Your task to perform on an android device: delete the emails in spam in the gmail app Image 0: 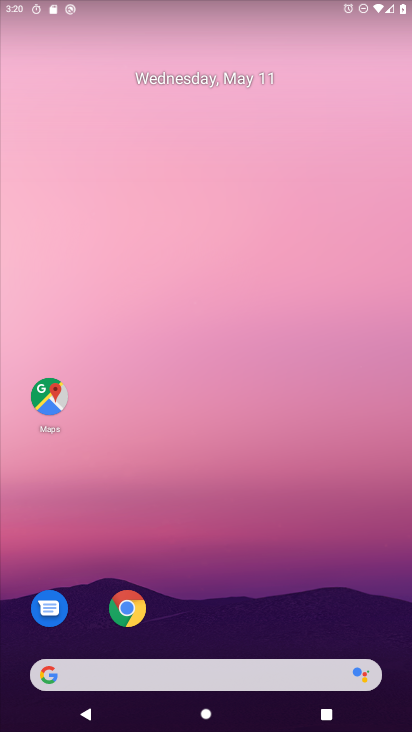
Step 0: drag from (217, 608) to (232, 102)
Your task to perform on an android device: delete the emails in spam in the gmail app Image 1: 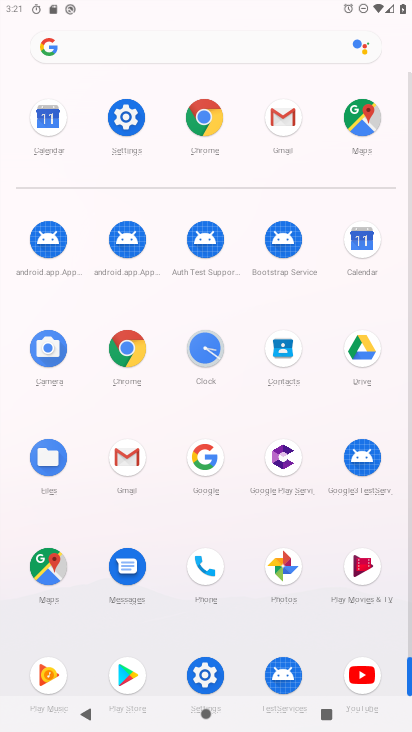
Step 1: click (132, 471)
Your task to perform on an android device: delete the emails in spam in the gmail app Image 2: 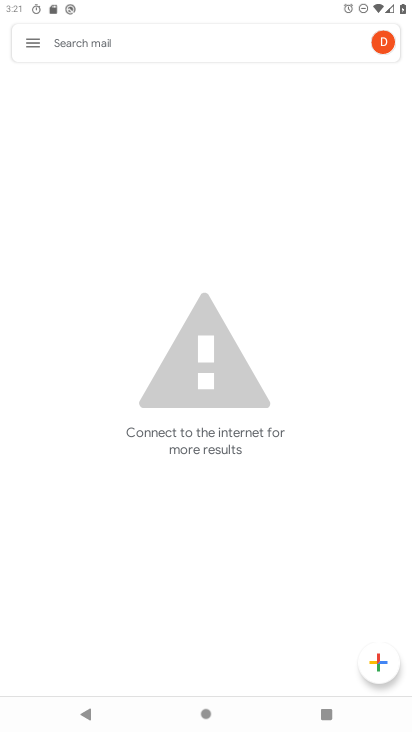
Step 2: click (36, 43)
Your task to perform on an android device: delete the emails in spam in the gmail app Image 3: 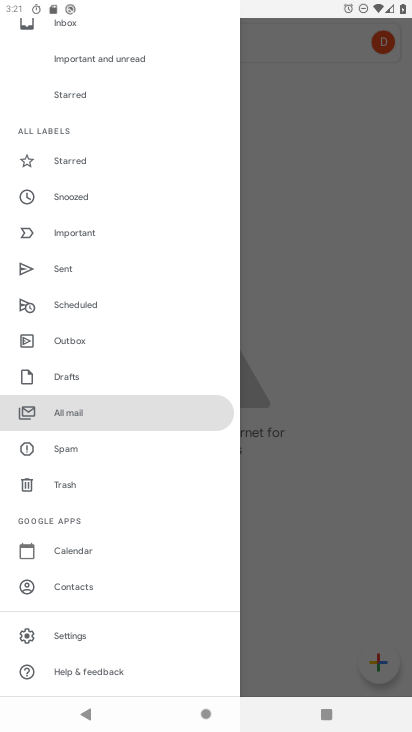
Step 3: drag from (92, 267) to (62, 543)
Your task to perform on an android device: delete the emails in spam in the gmail app Image 4: 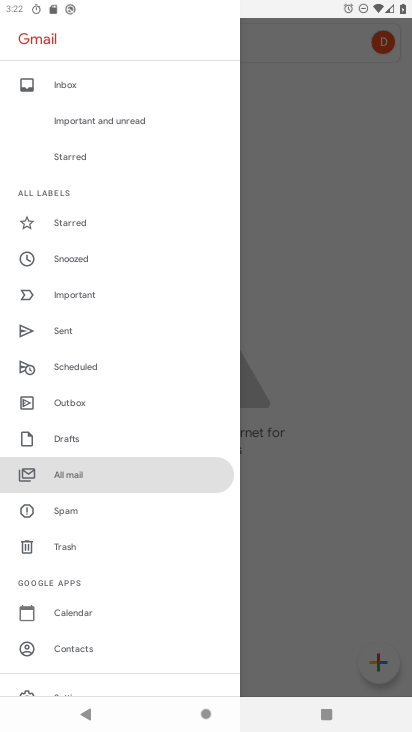
Step 4: click (76, 516)
Your task to perform on an android device: delete the emails in spam in the gmail app Image 5: 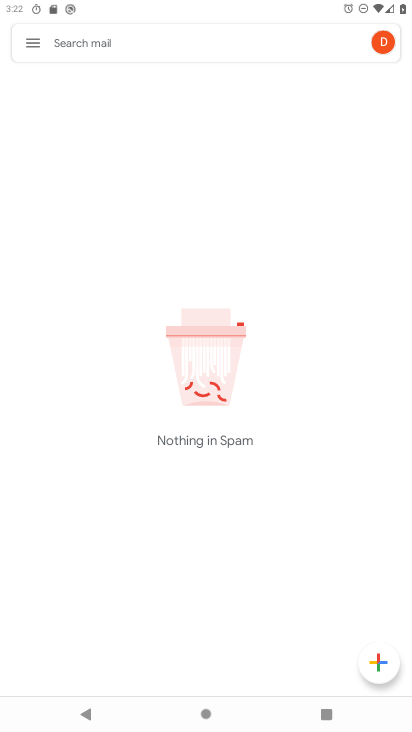
Step 5: click (26, 49)
Your task to perform on an android device: delete the emails in spam in the gmail app Image 6: 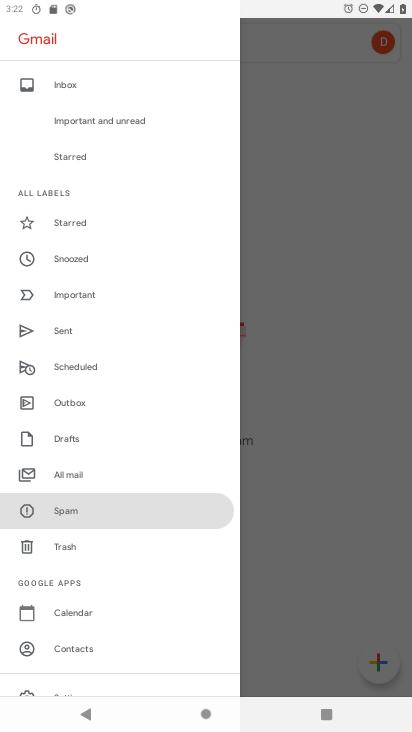
Step 6: click (161, 504)
Your task to perform on an android device: delete the emails in spam in the gmail app Image 7: 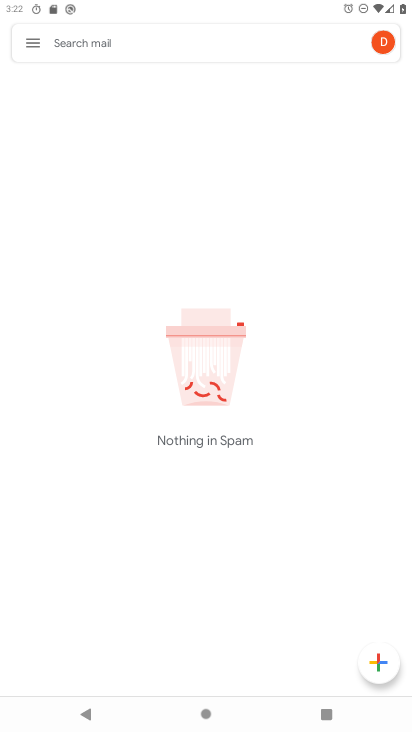
Step 7: task complete